Your task to perform on an android device: turn on data saver in the chrome app Image 0: 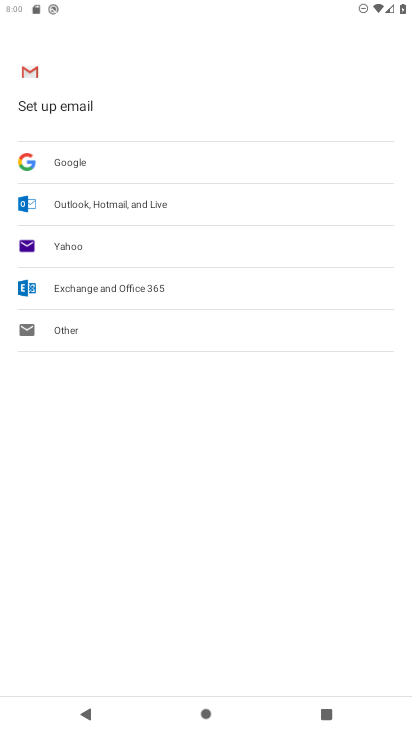
Step 0: press home button
Your task to perform on an android device: turn on data saver in the chrome app Image 1: 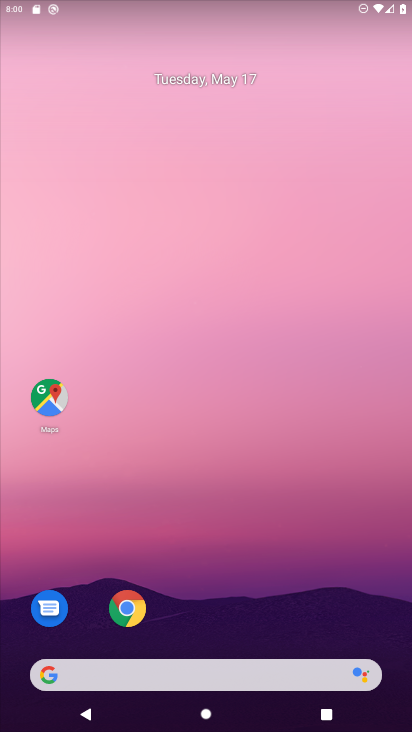
Step 1: click (125, 605)
Your task to perform on an android device: turn on data saver in the chrome app Image 2: 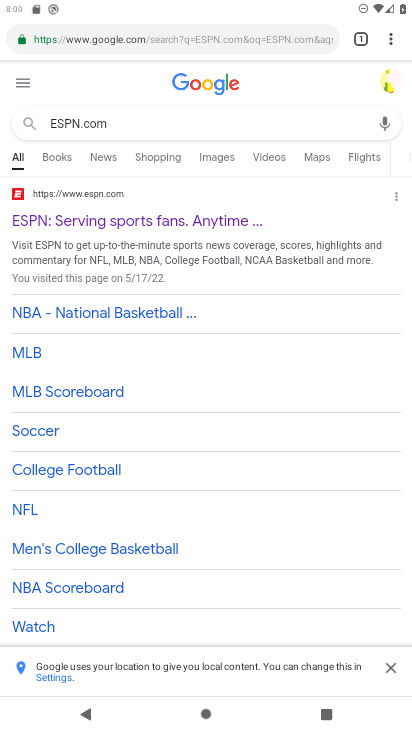
Step 2: click (398, 36)
Your task to perform on an android device: turn on data saver in the chrome app Image 3: 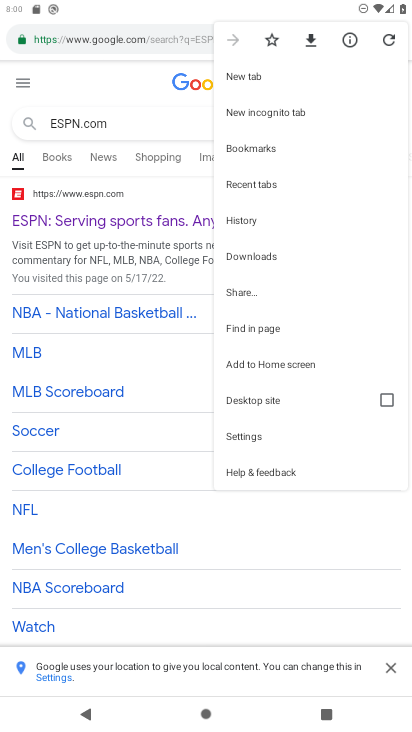
Step 3: click (253, 440)
Your task to perform on an android device: turn on data saver in the chrome app Image 4: 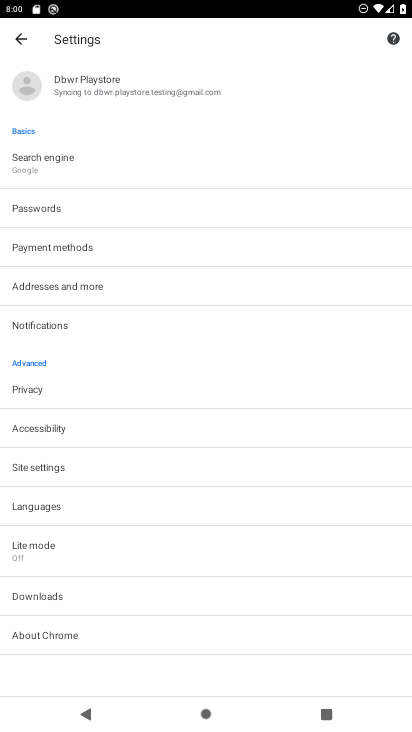
Step 4: click (67, 553)
Your task to perform on an android device: turn on data saver in the chrome app Image 5: 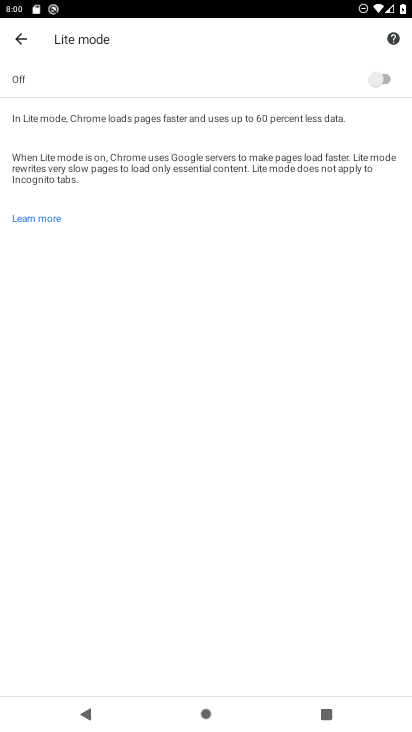
Step 5: click (364, 85)
Your task to perform on an android device: turn on data saver in the chrome app Image 6: 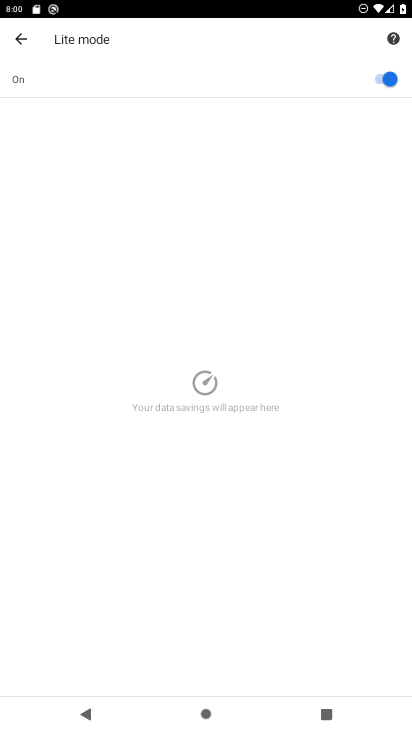
Step 6: task complete